Your task to perform on an android device: see sites visited before in the chrome app Image 0: 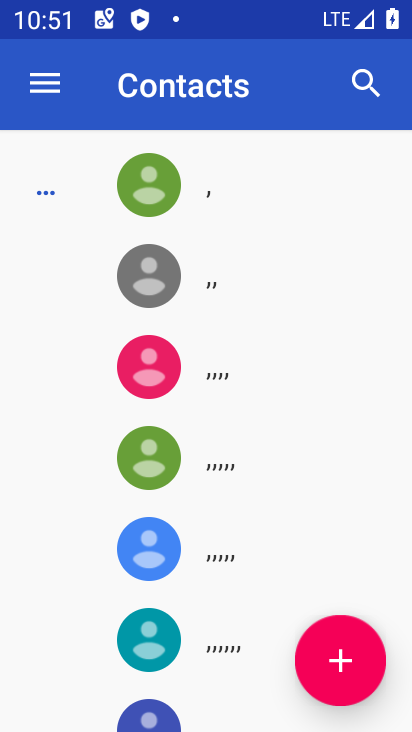
Step 0: press home button
Your task to perform on an android device: see sites visited before in the chrome app Image 1: 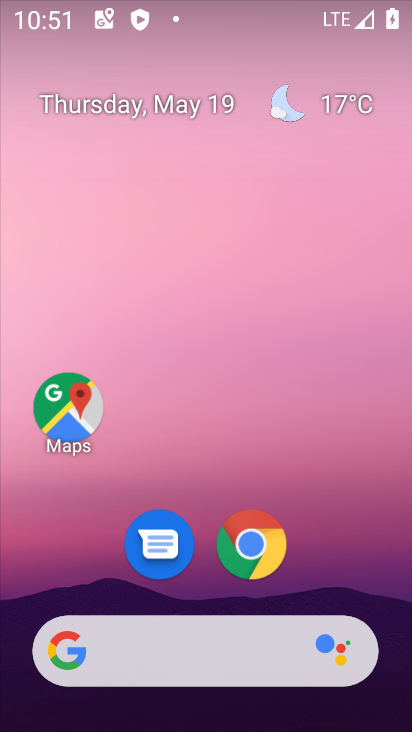
Step 1: click (245, 543)
Your task to perform on an android device: see sites visited before in the chrome app Image 2: 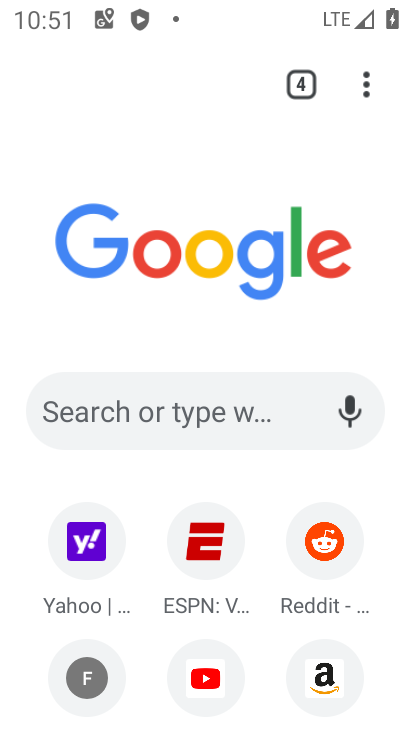
Step 2: click (359, 84)
Your task to perform on an android device: see sites visited before in the chrome app Image 3: 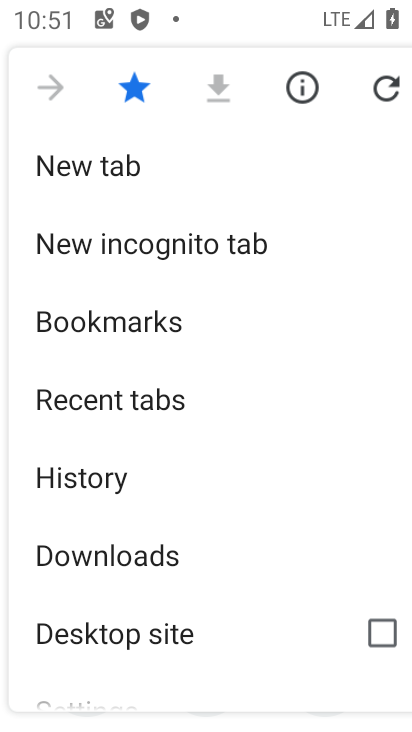
Step 3: click (124, 403)
Your task to perform on an android device: see sites visited before in the chrome app Image 4: 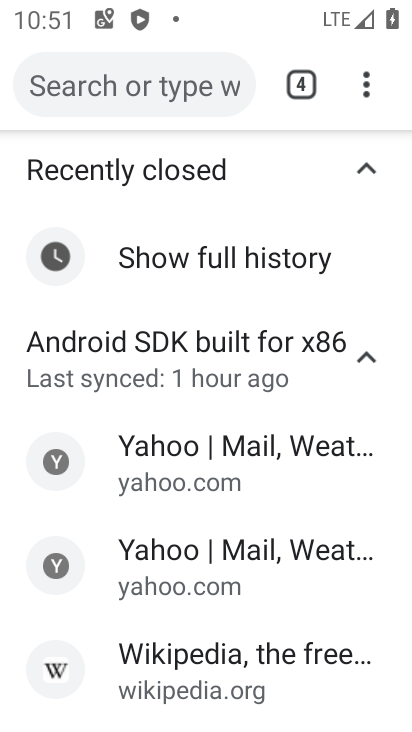
Step 4: task complete